Your task to perform on an android device: find snoozed emails in the gmail app Image 0: 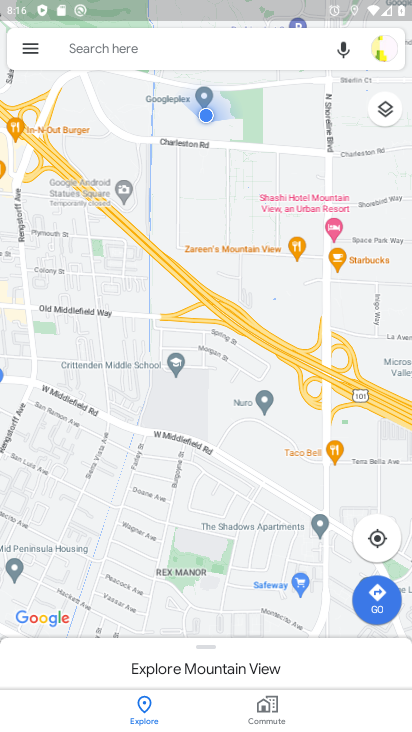
Step 0: press home button
Your task to perform on an android device: find snoozed emails in the gmail app Image 1: 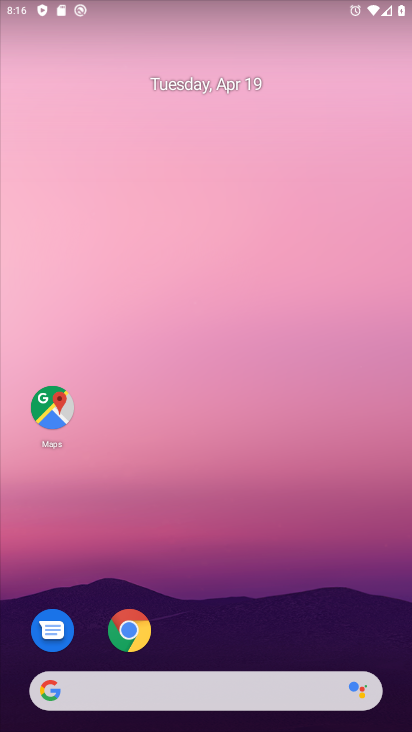
Step 1: drag from (202, 544) to (233, 210)
Your task to perform on an android device: find snoozed emails in the gmail app Image 2: 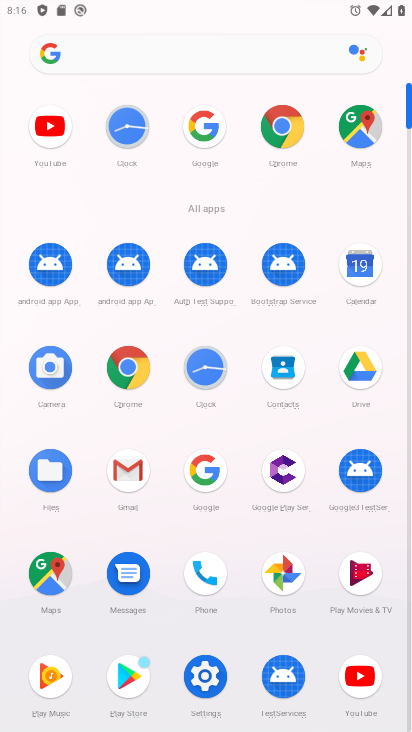
Step 2: click (121, 496)
Your task to perform on an android device: find snoozed emails in the gmail app Image 3: 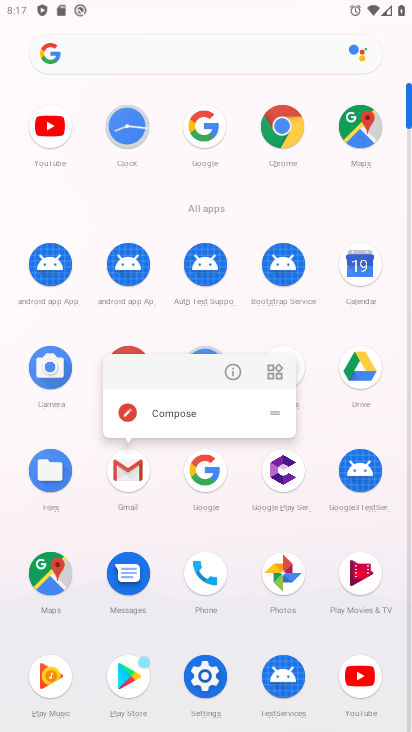
Step 3: click (121, 496)
Your task to perform on an android device: find snoozed emails in the gmail app Image 4: 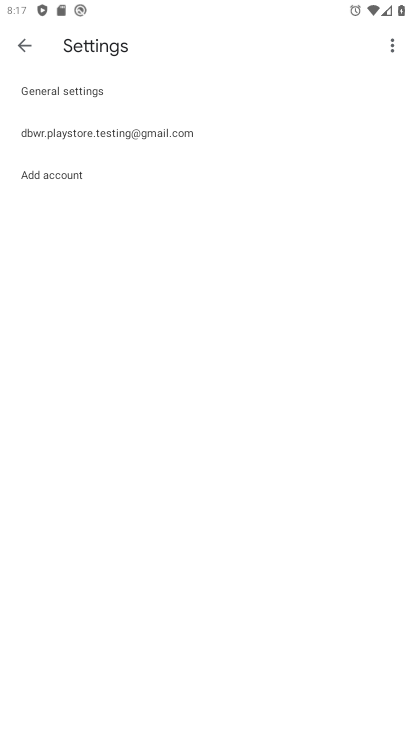
Step 4: click (21, 51)
Your task to perform on an android device: find snoozed emails in the gmail app Image 5: 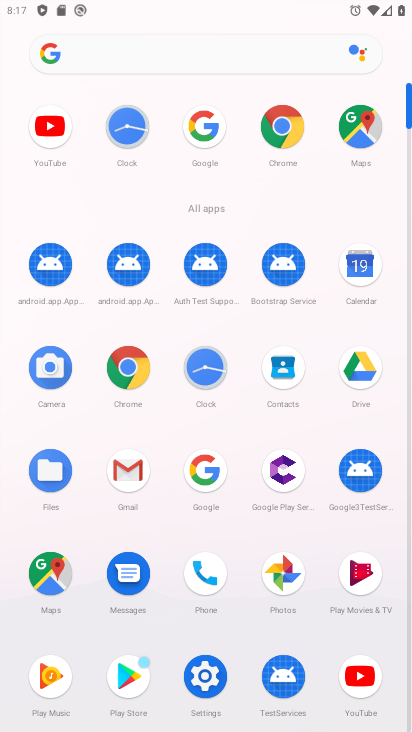
Step 5: click (139, 473)
Your task to perform on an android device: find snoozed emails in the gmail app Image 6: 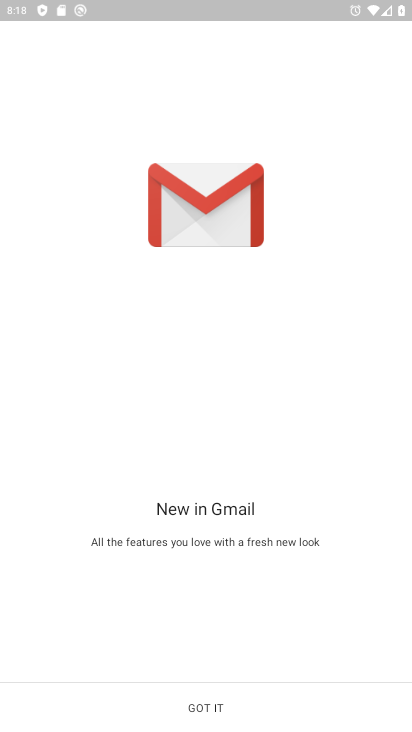
Step 6: click (243, 719)
Your task to perform on an android device: find snoozed emails in the gmail app Image 7: 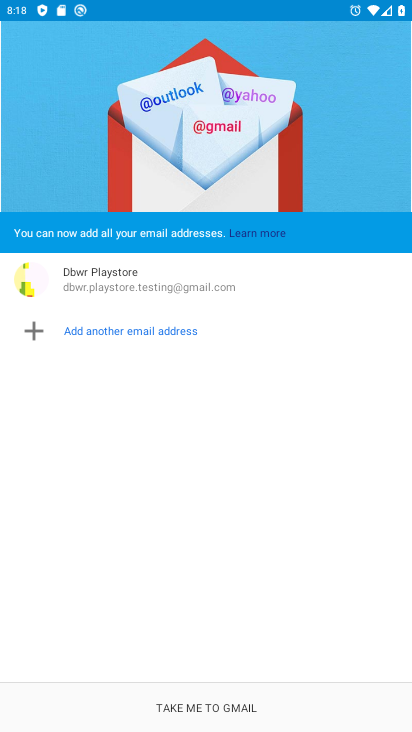
Step 7: click (243, 719)
Your task to perform on an android device: find snoozed emails in the gmail app Image 8: 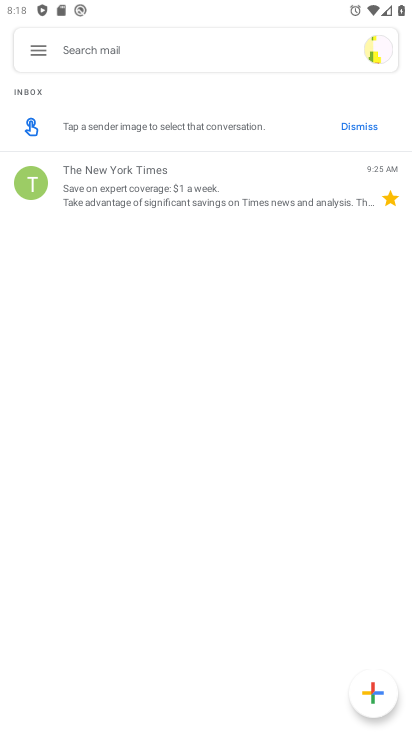
Step 8: click (43, 60)
Your task to perform on an android device: find snoozed emails in the gmail app Image 9: 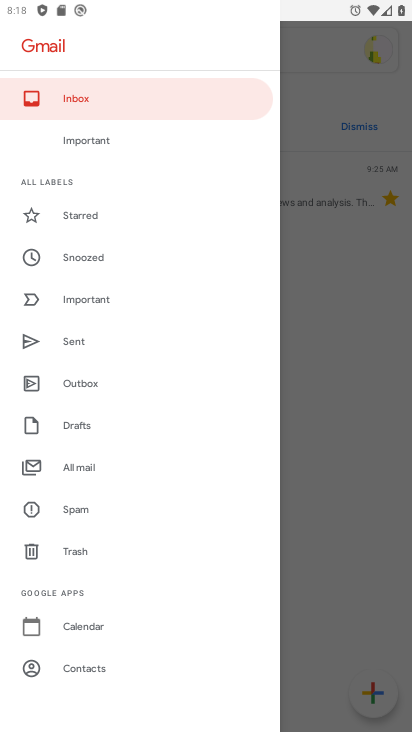
Step 9: click (112, 267)
Your task to perform on an android device: find snoozed emails in the gmail app Image 10: 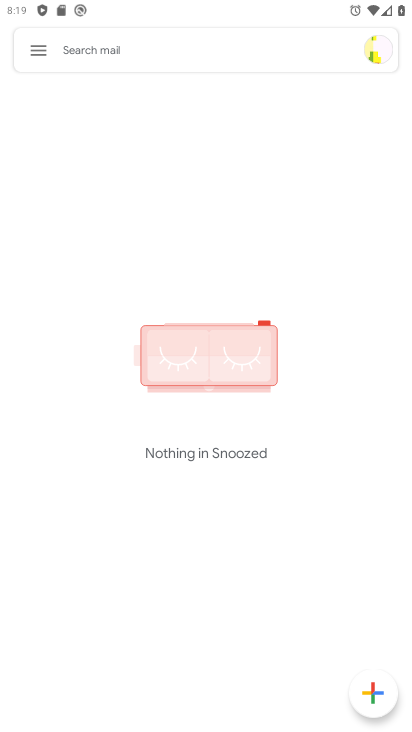
Step 10: task complete